Your task to perform on an android device: What's the weather going to be tomorrow? Image 0: 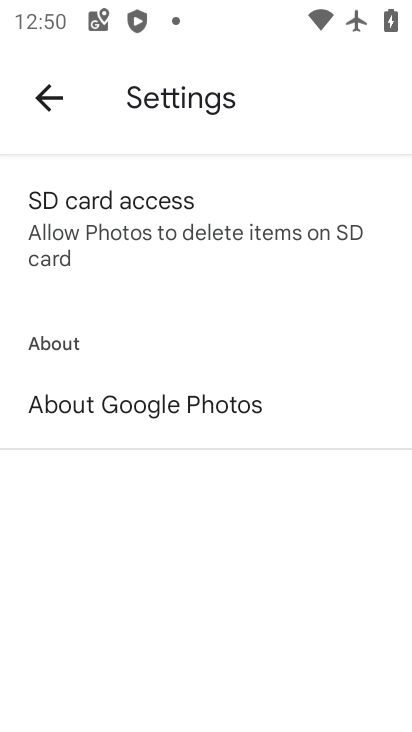
Step 0: press home button
Your task to perform on an android device: What's the weather going to be tomorrow? Image 1: 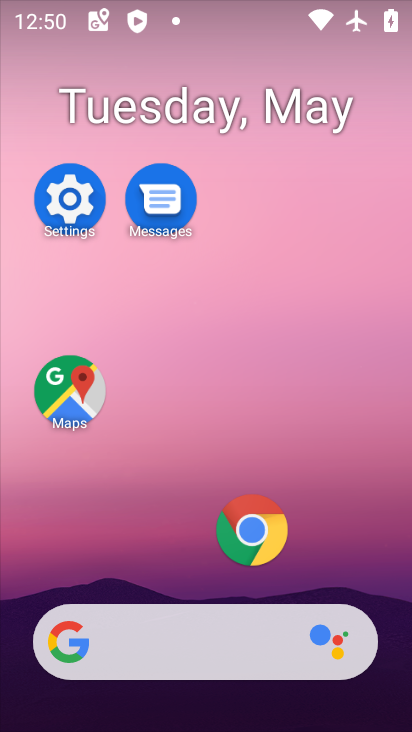
Step 1: drag from (197, 581) to (255, 137)
Your task to perform on an android device: What's the weather going to be tomorrow? Image 2: 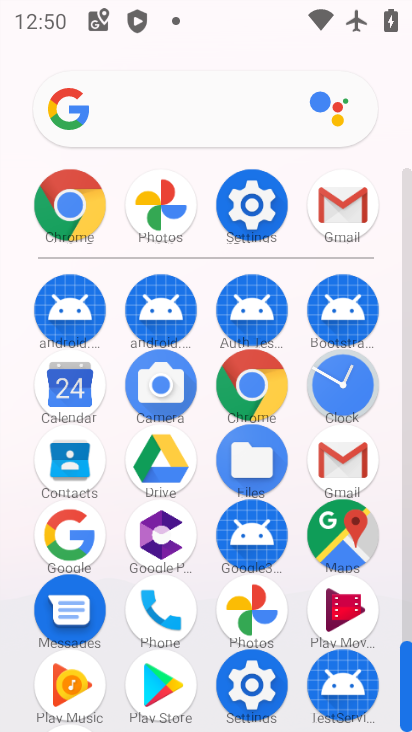
Step 2: click (61, 538)
Your task to perform on an android device: What's the weather going to be tomorrow? Image 3: 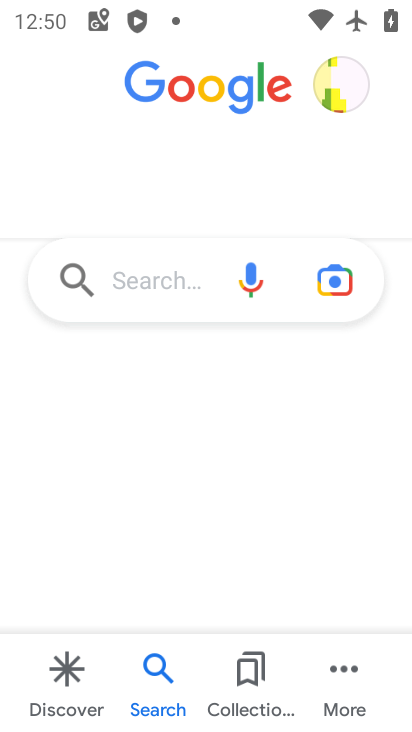
Step 3: click (61, 689)
Your task to perform on an android device: What's the weather going to be tomorrow? Image 4: 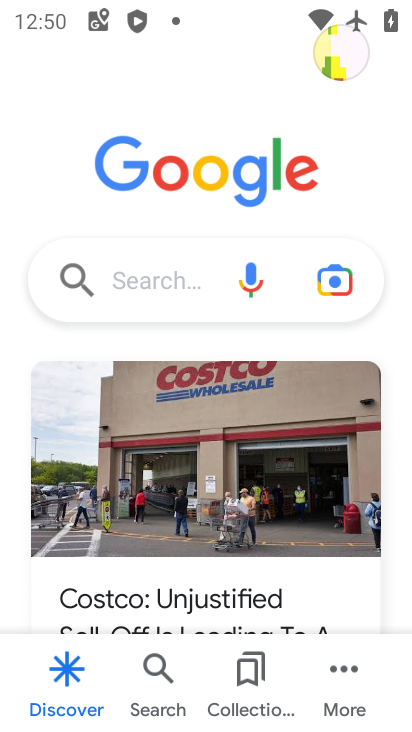
Step 4: drag from (150, 492) to (185, 174)
Your task to perform on an android device: What's the weather going to be tomorrow? Image 5: 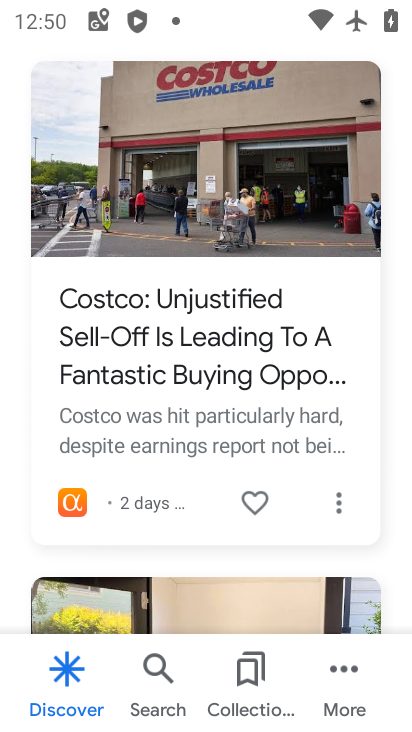
Step 5: click (165, 441)
Your task to perform on an android device: What's the weather going to be tomorrow? Image 6: 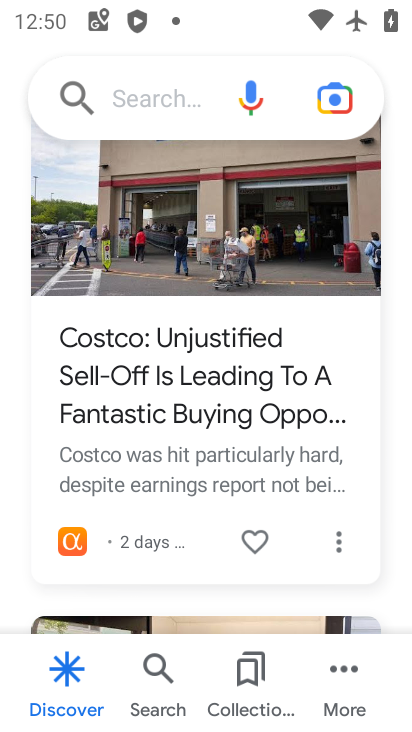
Step 6: drag from (190, 184) to (284, 708)
Your task to perform on an android device: What's the weather going to be tomorrow? Image 7: 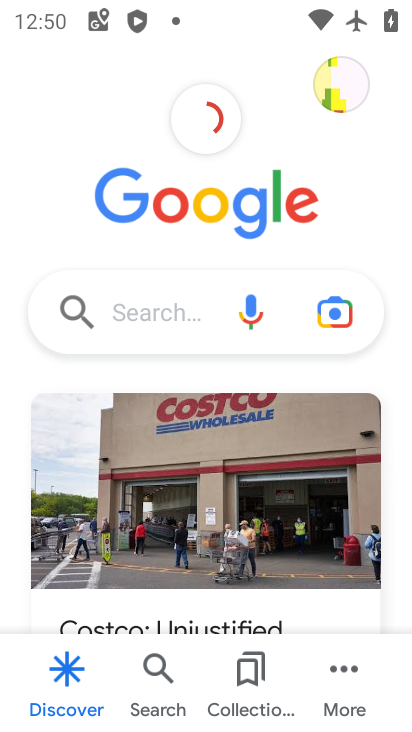
Step 7: click (173, 321)
Your task to perform on an android device: What's the weather going to be tomorrow? Image 8: 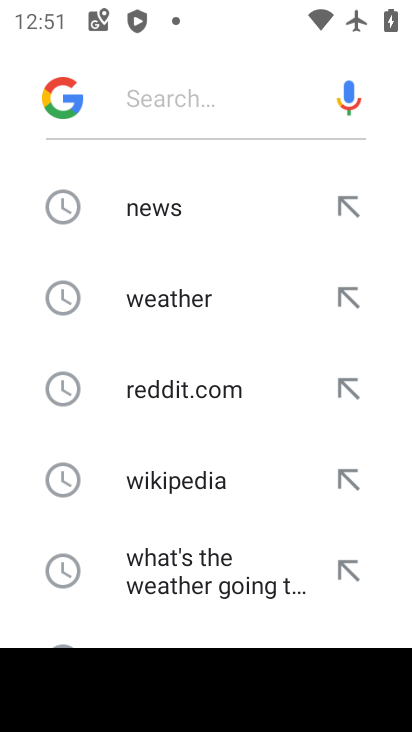
Step 8: click (172, 321)
Your task to perform on an android device: What's the weather going to be tomorrow? Image 9: 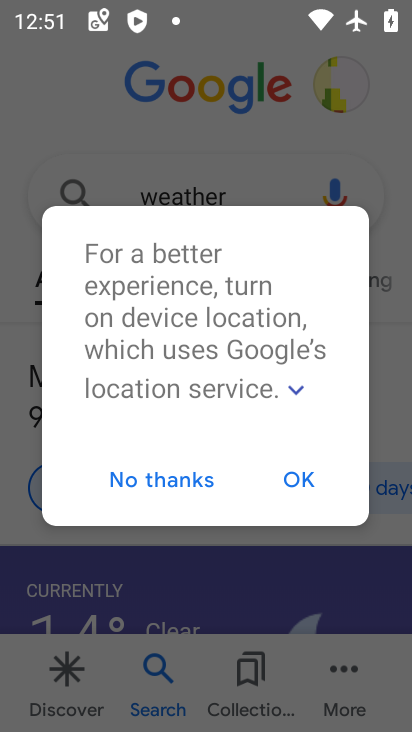
Step 9: click (298, 480)
Your task to perform on an android device: What's the weather going to be tomorrow? Image 10: 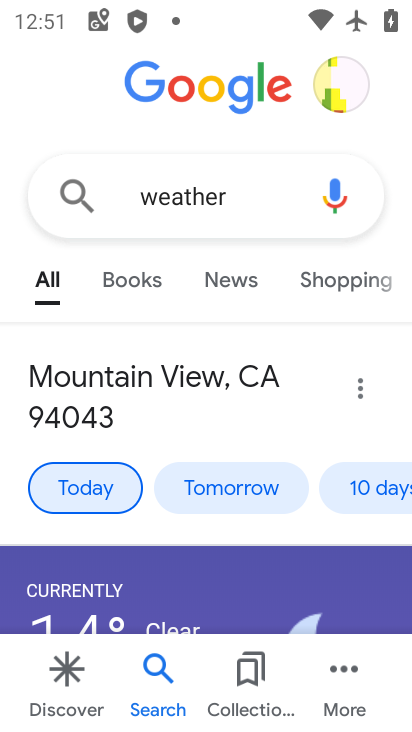
Step 10: click (218, 486)
Your task to perform on an android device: What's the weather going to be tomorrow? Image 11: 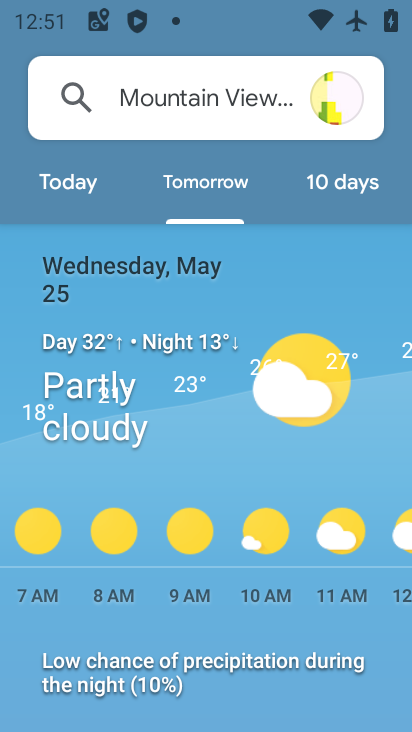
Step 11: task complete